Your task to perform on an android device: turn off location Image 0: 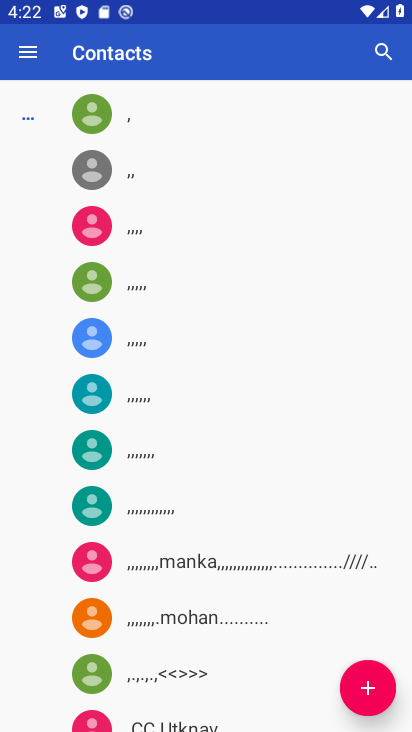
Step 0: press home button
Your task to perform on an android device: turn off location Image 1: 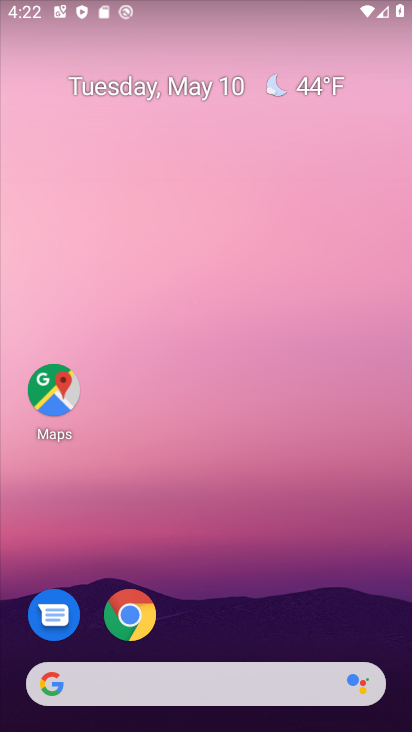
Step 1: drag from (221, 722) to (217, 189)
Your task to perform on an android device: turn off location Image 2: 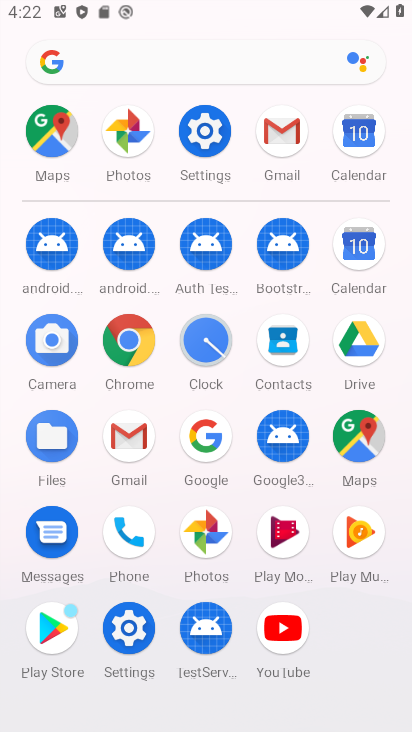
Step 2: click (123, 637)
Your task to perform on an android device: turn off location Image 3: 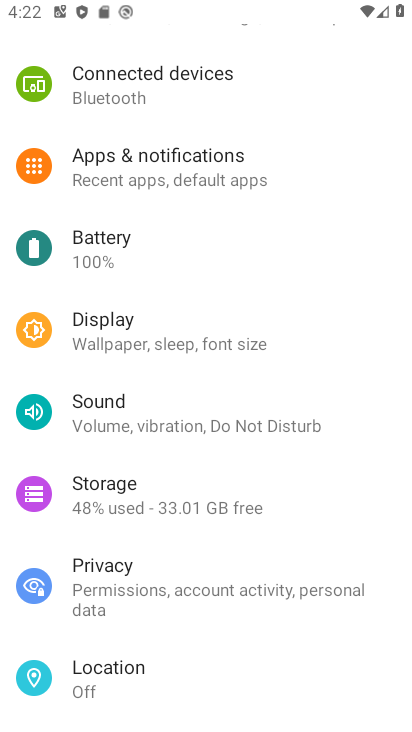
Step 3: click (112, 665)
Your task to perform on an android device: turn off location Image 4: 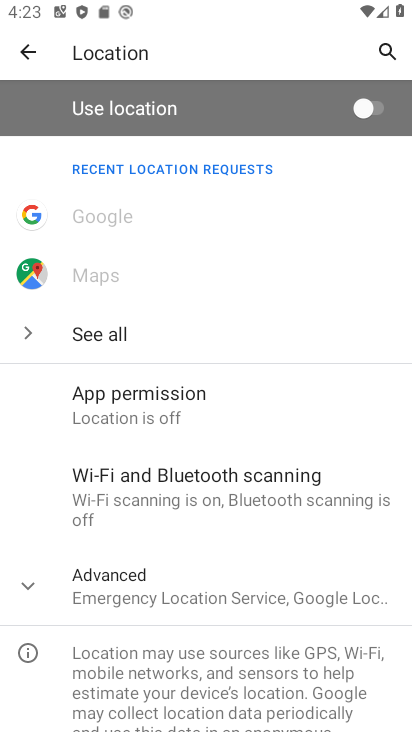
Step 4: task complete